Your task to perform on an android device: see sites visited before in the chrome app Image 0: 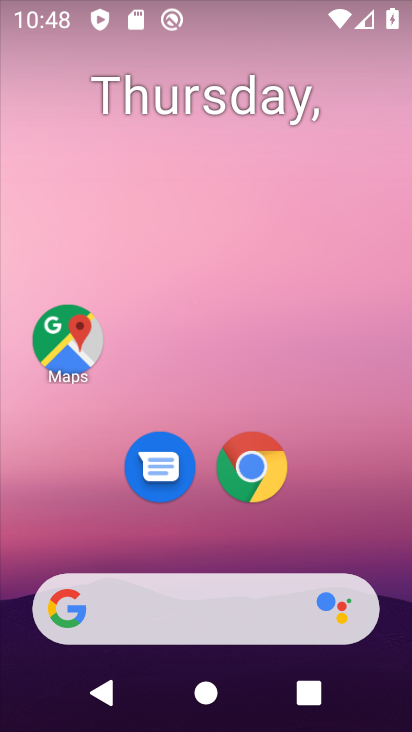
Step 0: click (262, 488)
Your task to perform on an android device: see sites visited before in the chrome app Image 1: 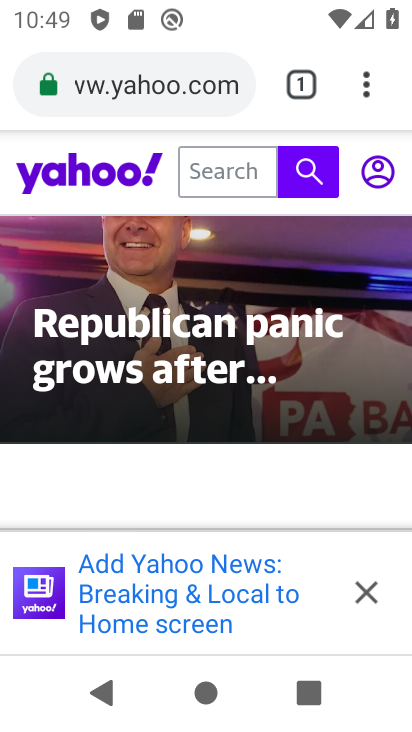
Step 1: click (368, 85)
Your task to perform on an android device: see sites visited before in the chrome app Image 2: 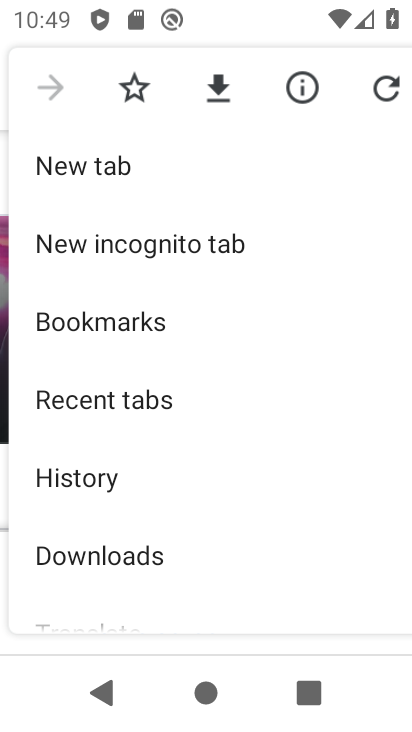
Step 2: click (91, 478)
Your task to perform on an android device: see sites visited before in the chrome app Image 3: 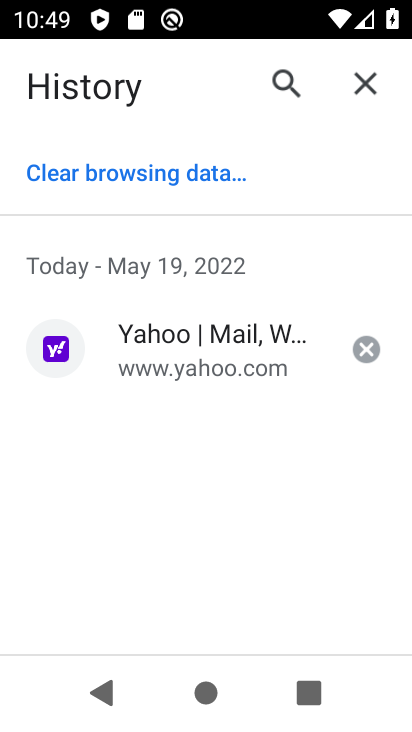
Step 3: task complete